Your task to perform on an android device: turn on sleep mode Image 0: 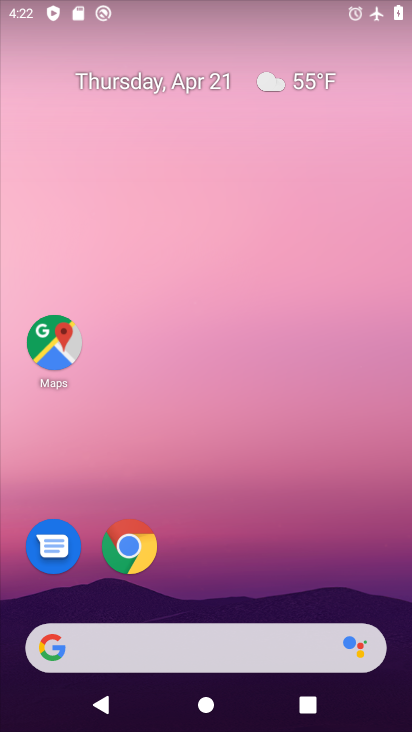
Step 0: drag from (250, 525) to (245, 137)
Your task to perform on an android device: turn on sleep mode Image 1: 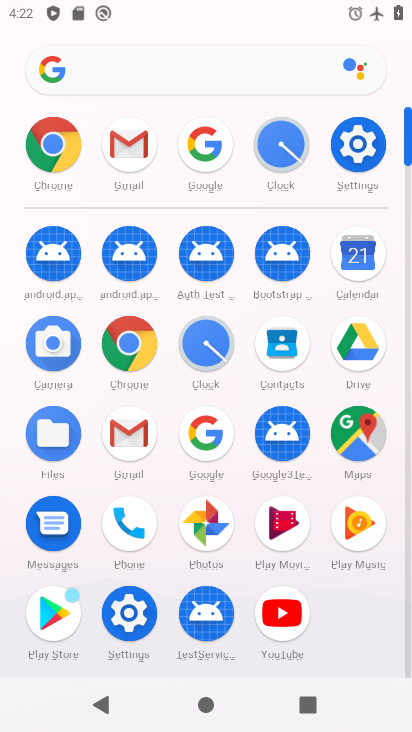
Step 1: click (141, 611)
Your task to perform on an android device: turn on sleep mode Image 2: 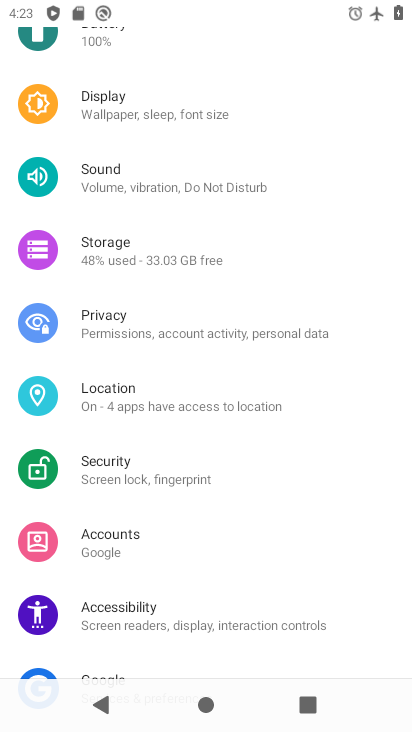
Step 2: click (178, 113)
Your task to perform on an android device: turn on sleep mode Image 3: 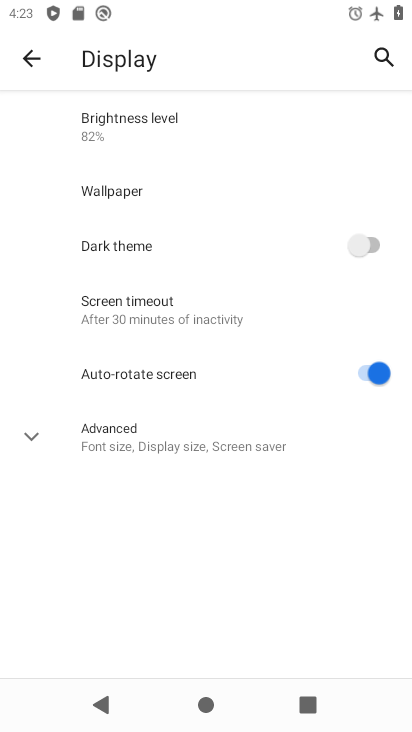
Step 3: click (143, 302)
Your task to perform on an android device: turn on sleep mode Image 4: 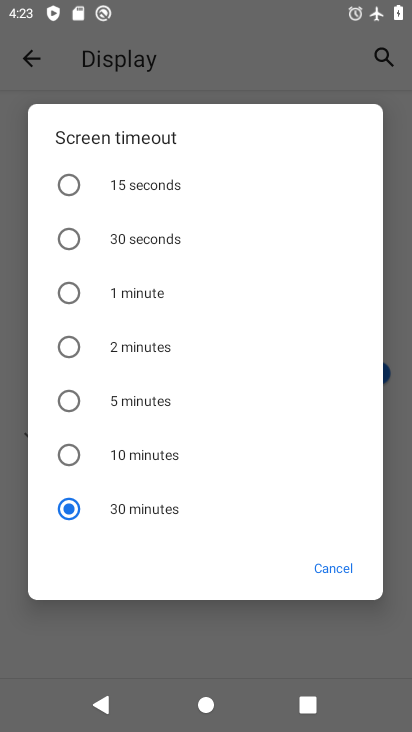
Step 4: task complete